Your task to perform on an android device: check data usage Image 0: 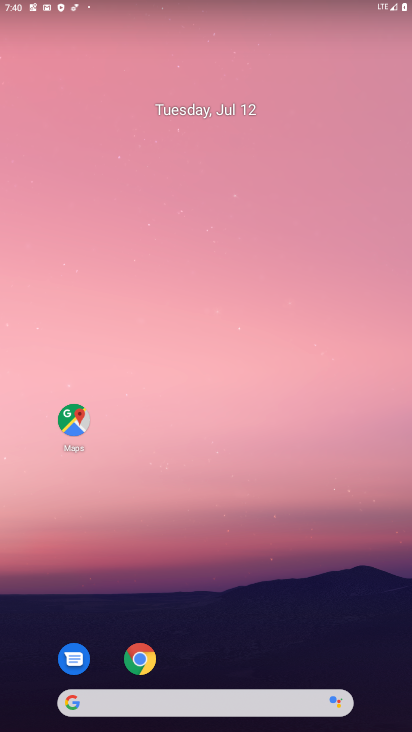
Step 0: drag from (219, 645) to (224, 140)
Your task to perform on an android device: check data usage Image 1: 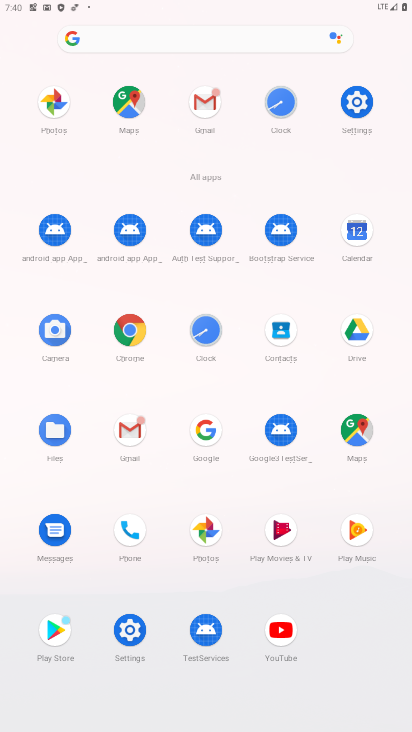
Step 1: click (358, 104)
Your task to perform on an android device: check data usage Image 2: 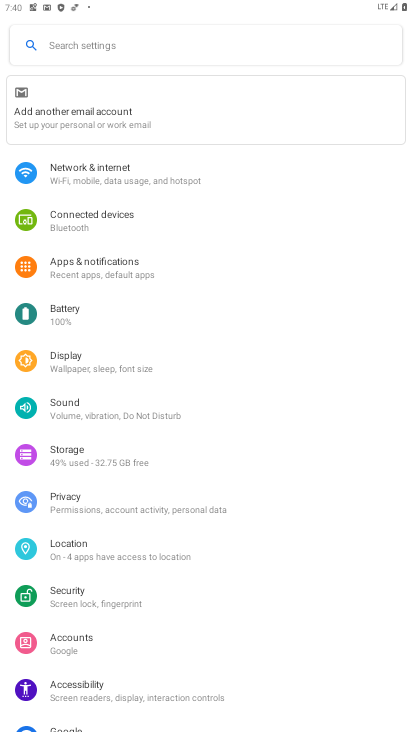
Step 2: click (119, 173)
Your task to perform on an android device: check data usage Image 3: 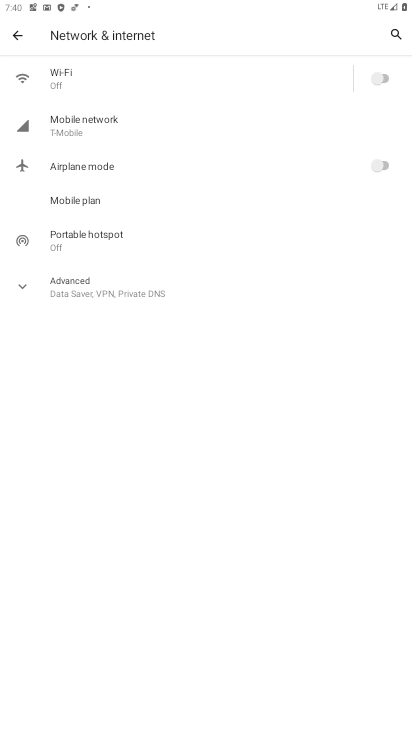
Step 3: click (107, 129)
Your task to perform on an android device: check data usage Image 4: 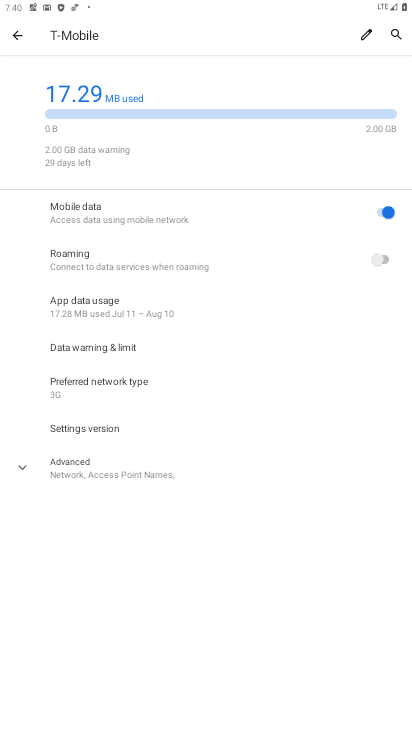
Step 4: task complete